Your task to perform on an android device: Search for Italian restaurants on Maps Image 0: 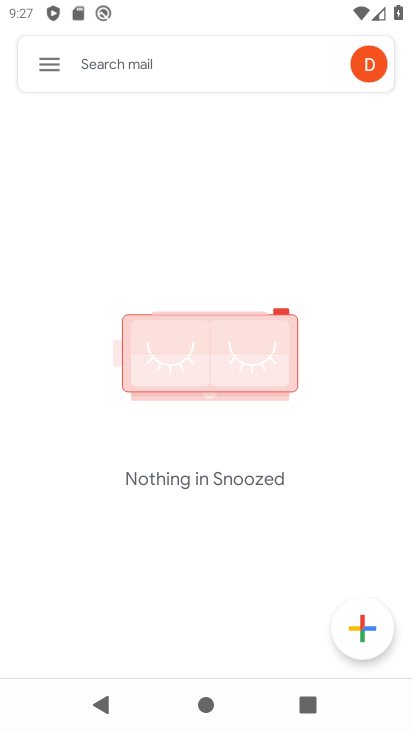
Step 0: press back button
Your task to perform on an android device: Search for Italian restaurants on Maps Image 1: 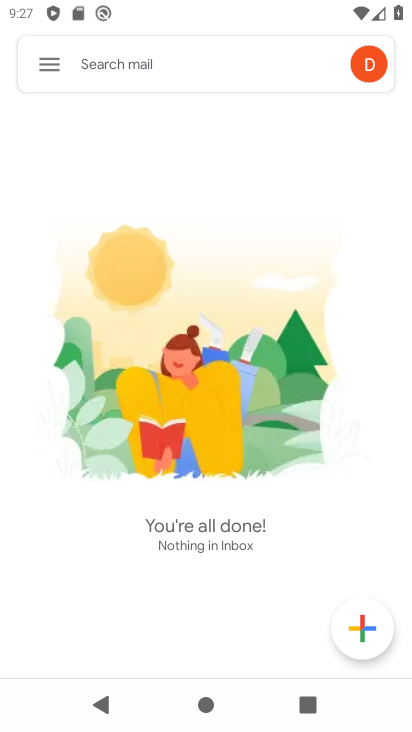
Step 1: press back button
Your task to perform on an android device: Search for Italian restaurants on Maps Image 2: 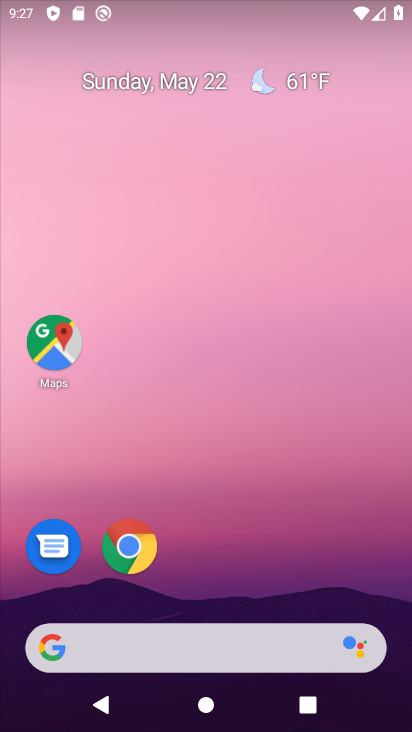
Step 2: click (50, 344)
Your task to perform on an android device: Search for Italian restaurants on Maps Image 3: 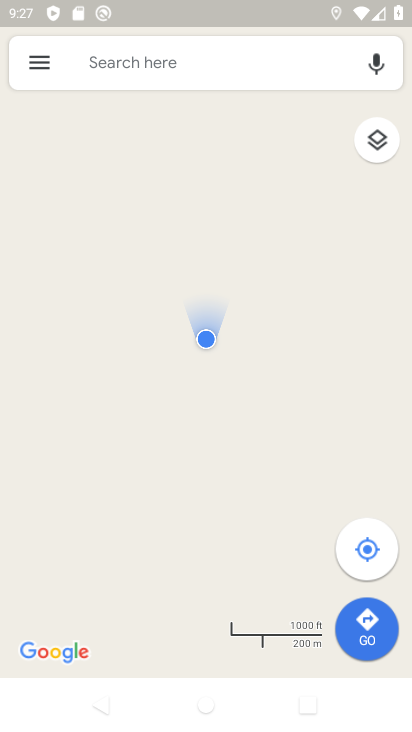
Step 3: click (174, 67)
Your task to perform on an android device: Search for Italian restaurants on Maps Image 4: 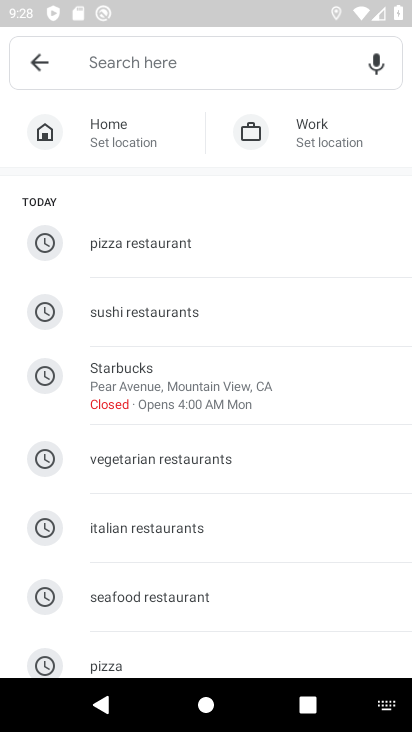
Step 4: type "Italian restaurants"
Your task to perform on an android device: Search for Italian restaurants on Maps Image 5: 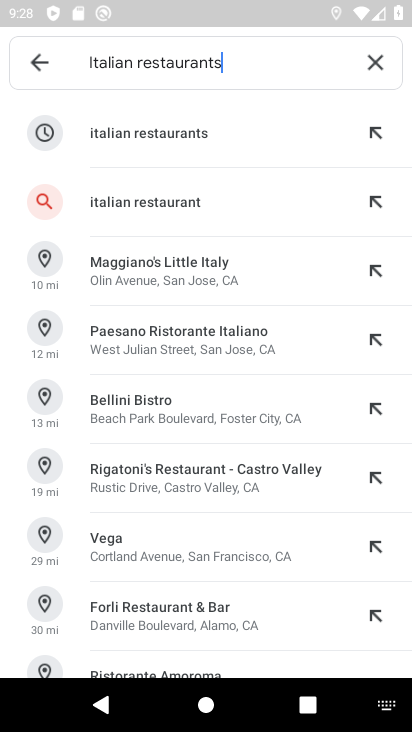
Step 5: click (124, 137)
Your task to perform on an android device: Search for Italian restaurants on Maps Image 6: 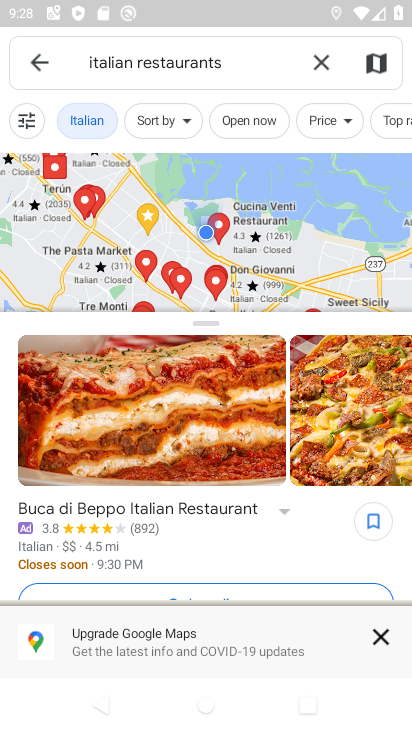
Step 6: task complete